Your task to perform on an android device: Open the calendar app, open the side menu, and click the "Day" option Image 0: 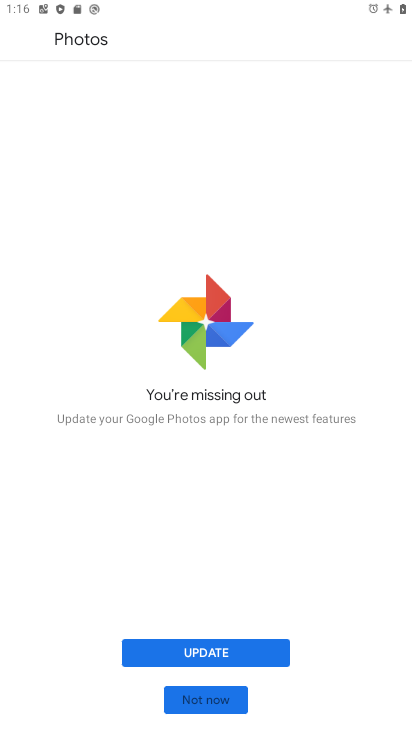
Step 0: press home button
Your task to perform on an android device: Open the calendar app, open the side menu, and click the "Day" option Image 1: 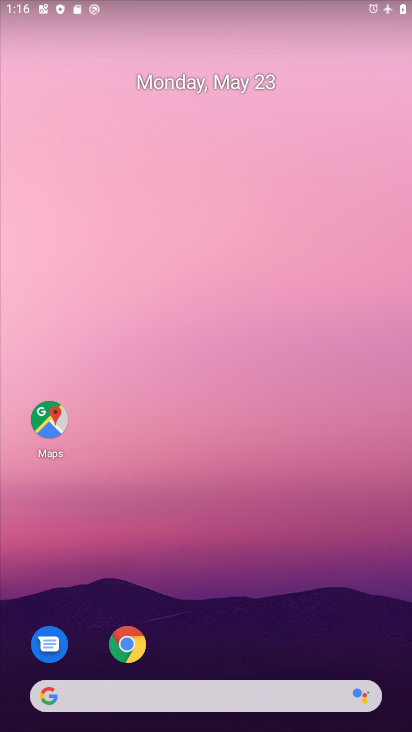
Step 1: drag from (358, 621) to (300, 56)
Your task to perform on an android device: Open the calendar app, open the side menu, and click the "Day" option Image 2: 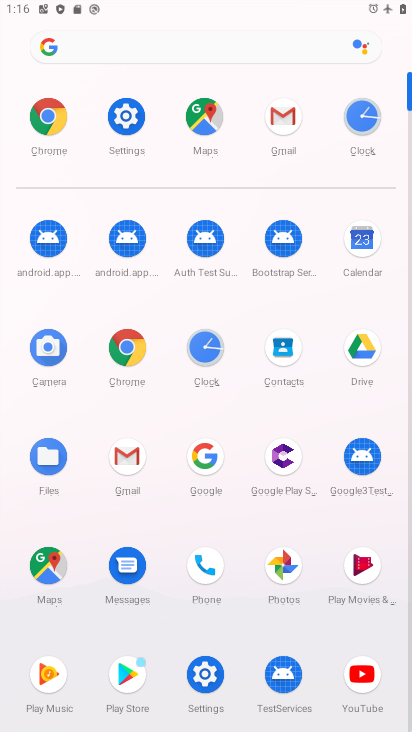
Step 2: click (386, 241)
Your task to perform on an android device: Open the calendar app, open the side menu, and click the "Day" option Image 3: 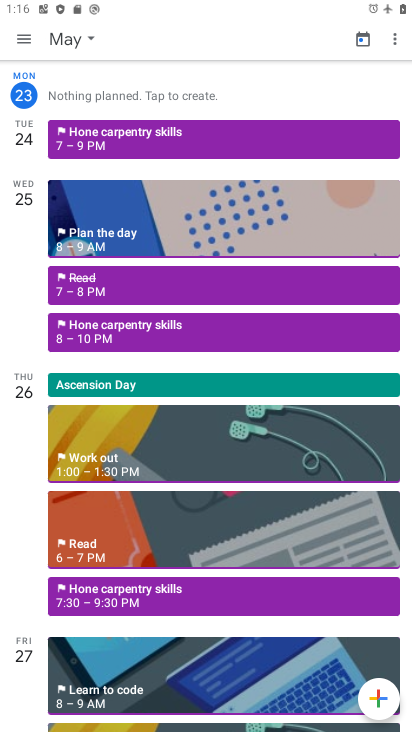
Step 3: click (29, 23)
Your task to perform on an android device: Open the calendar app, open the side menu, and click the "Day" option Image 4: 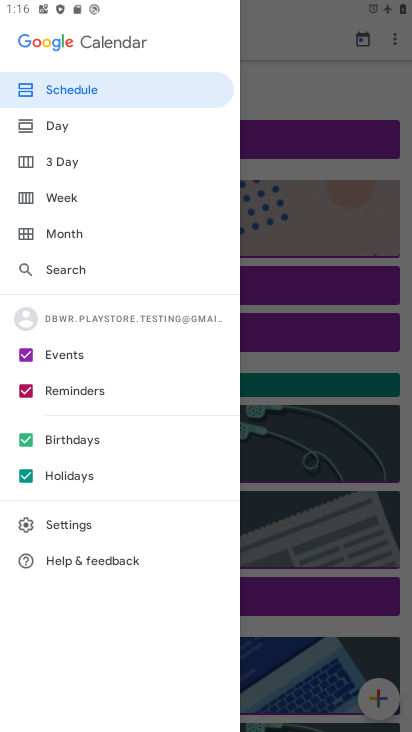
Step 4: click (64, 131)
Your task to perform on an android device: Open the calendar app, open the side menu, and click the "Day" option Image 5: 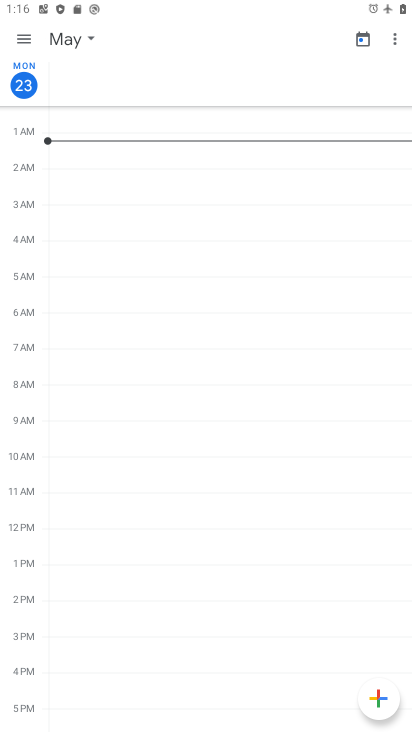
Step 5: task complete